Your task to perform on an android device: Open Amazon Image 0: 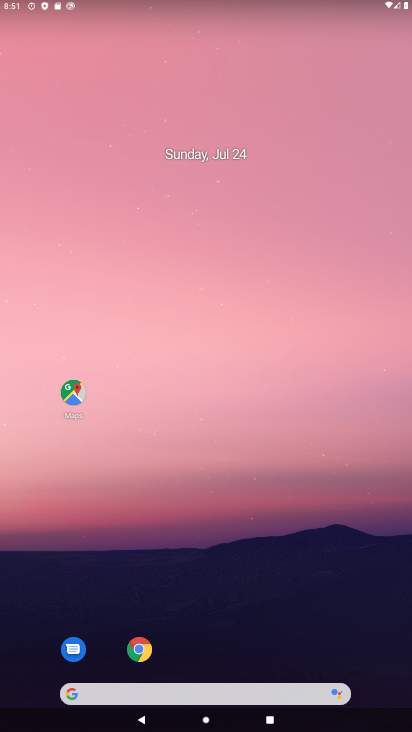
Step 0: click (120, 684)
Your task to perform on an android device: Open Amazon Image 1: 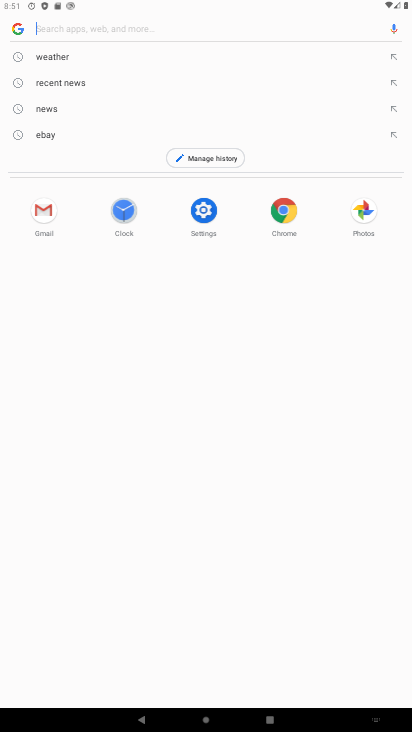
Step 1: type "Amazon"
Your task to perform on an android device: Open Amazon Image 2: 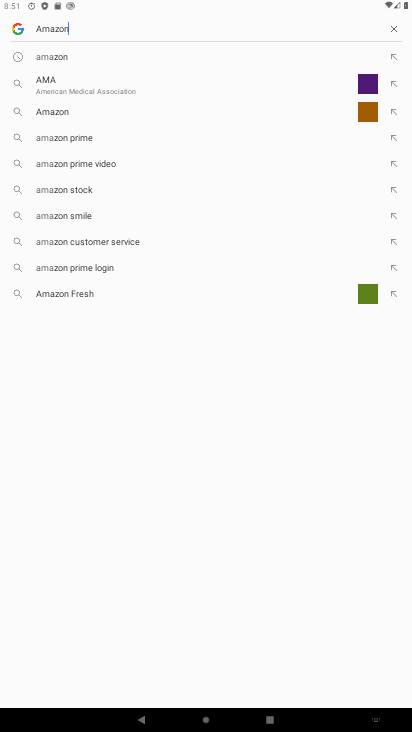
Step 2: type ""
Your task to perform on an android device: Open Amazon Image 3: 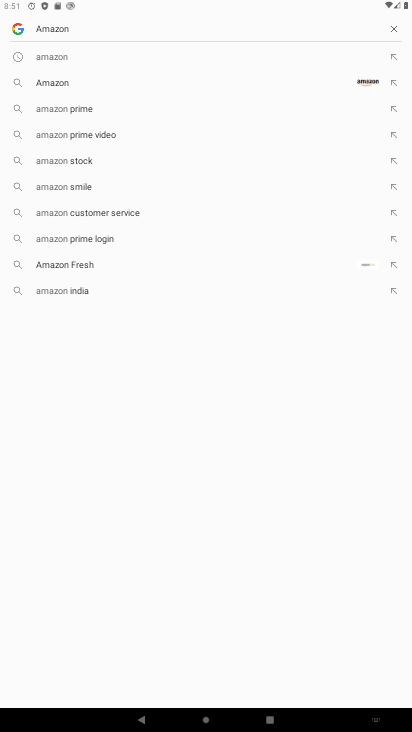
Step 3: click (54, 55)
Your task to perform on an android device: Open Amazon Image 4: 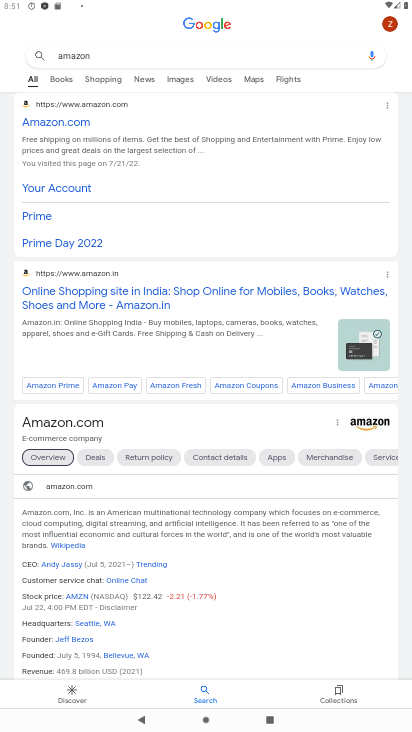
Step 4: task complete